Your task to perform on an android device: Is it going to rain tomorrow? Image 0: 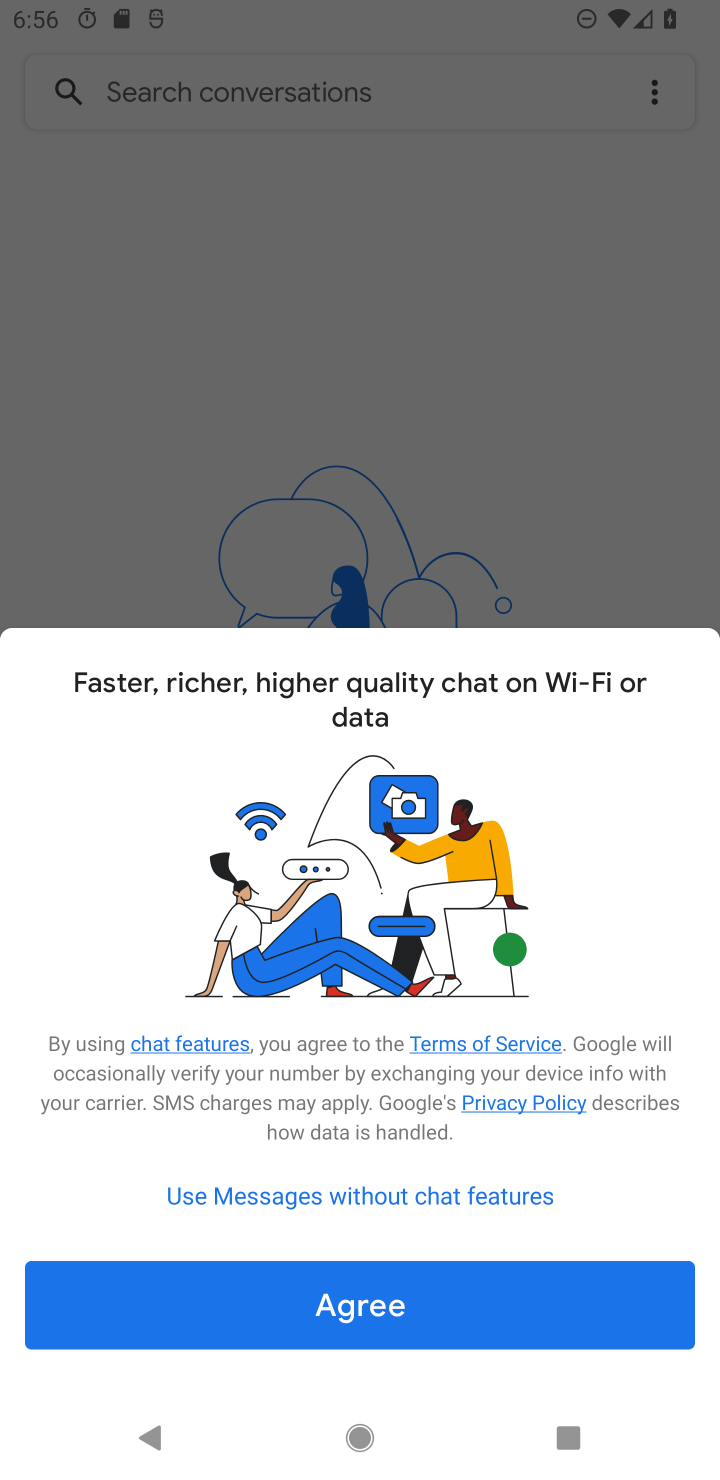
Step 0: drag from (365, 1170) to (383, 586)
Your task to perform on an android device: Is it going to rain tomorrow? Image 1: 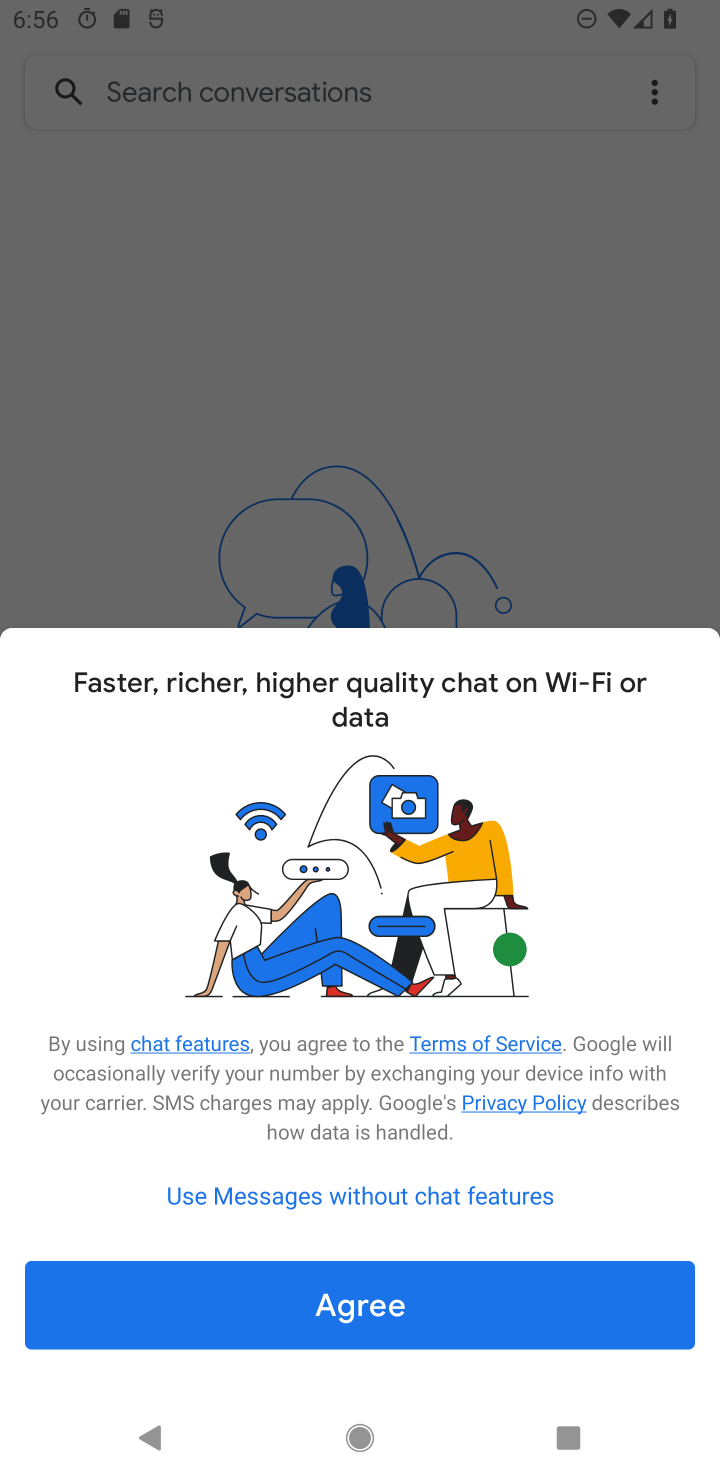
Step 1: press home button
Your task to perform on an android device: Is it going to rain tomorrow? Image 2: 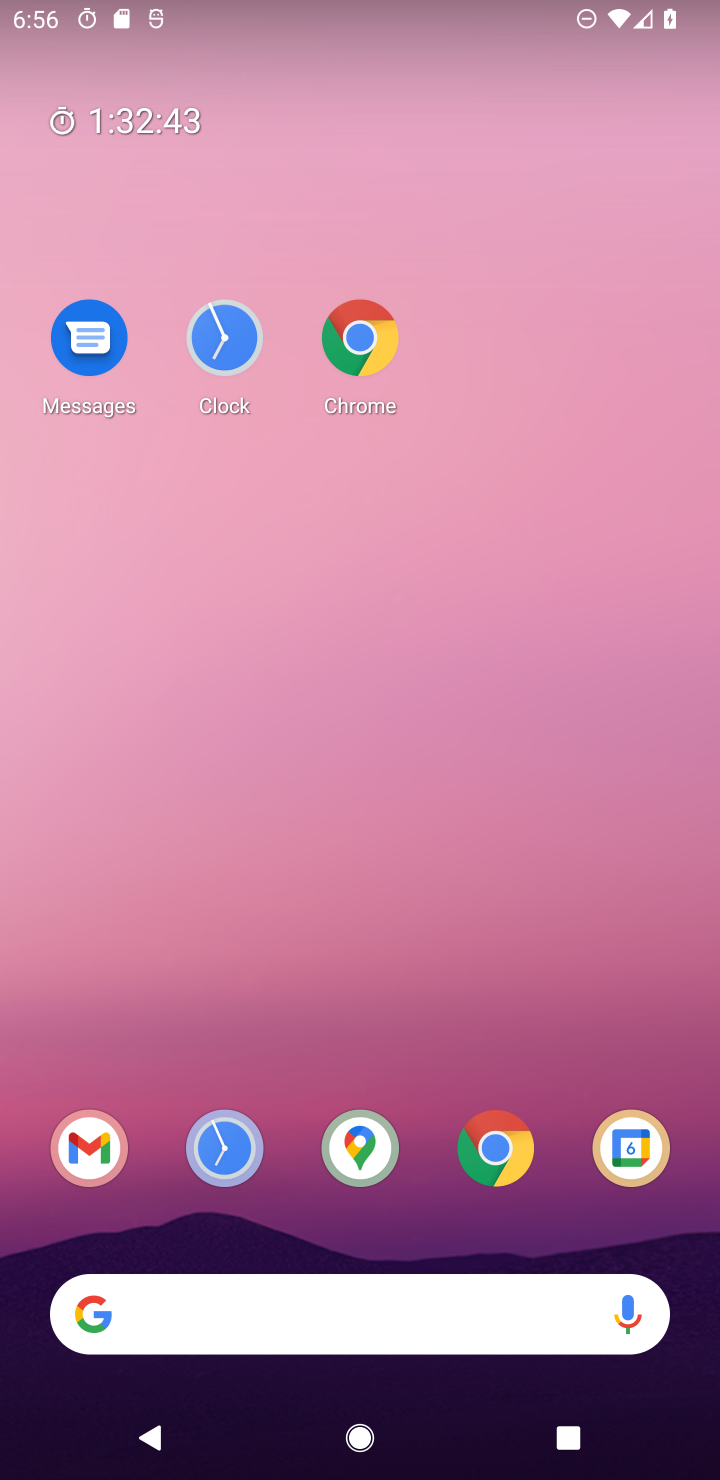
Step 2: drag from (360, 810) to (378, 393)
Your task to perform on an android device: Is it going to rain tomorrow? Image 3: 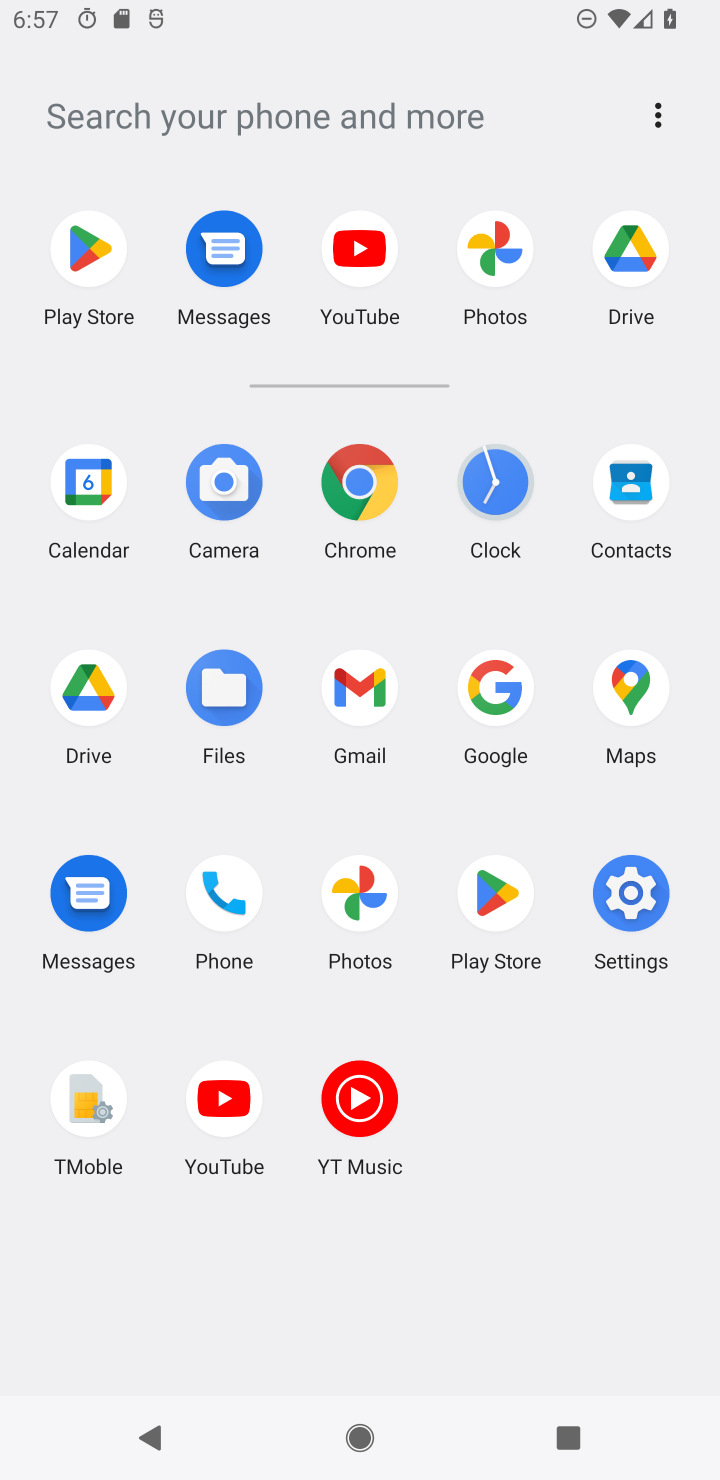
Step 3: click (103, 129)
Your task to perform on an android device: Is it going to rain tomorrow? Image 4: 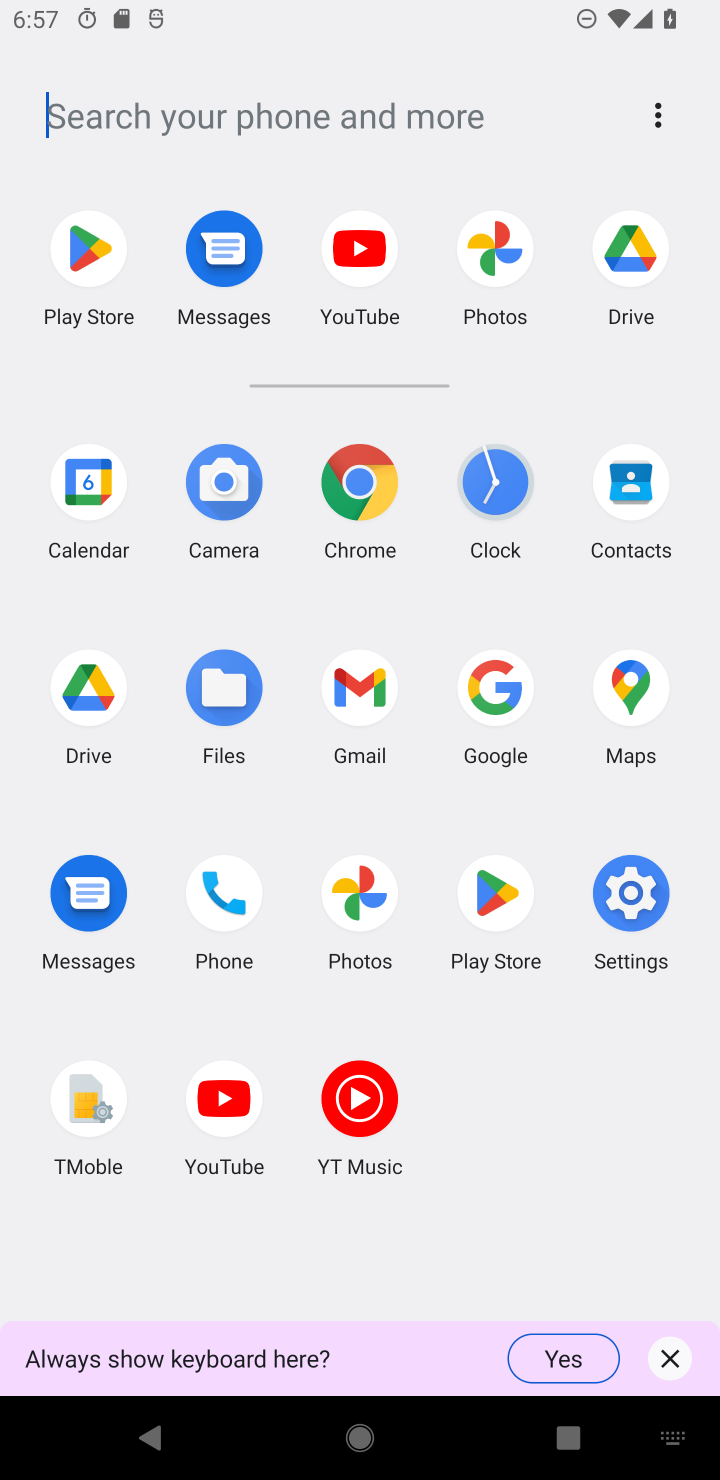
Step 4: type "Is it going to rain tomorrow?"
Your task to perform on an android device: Is it going to rain tomorrow? Image 5: 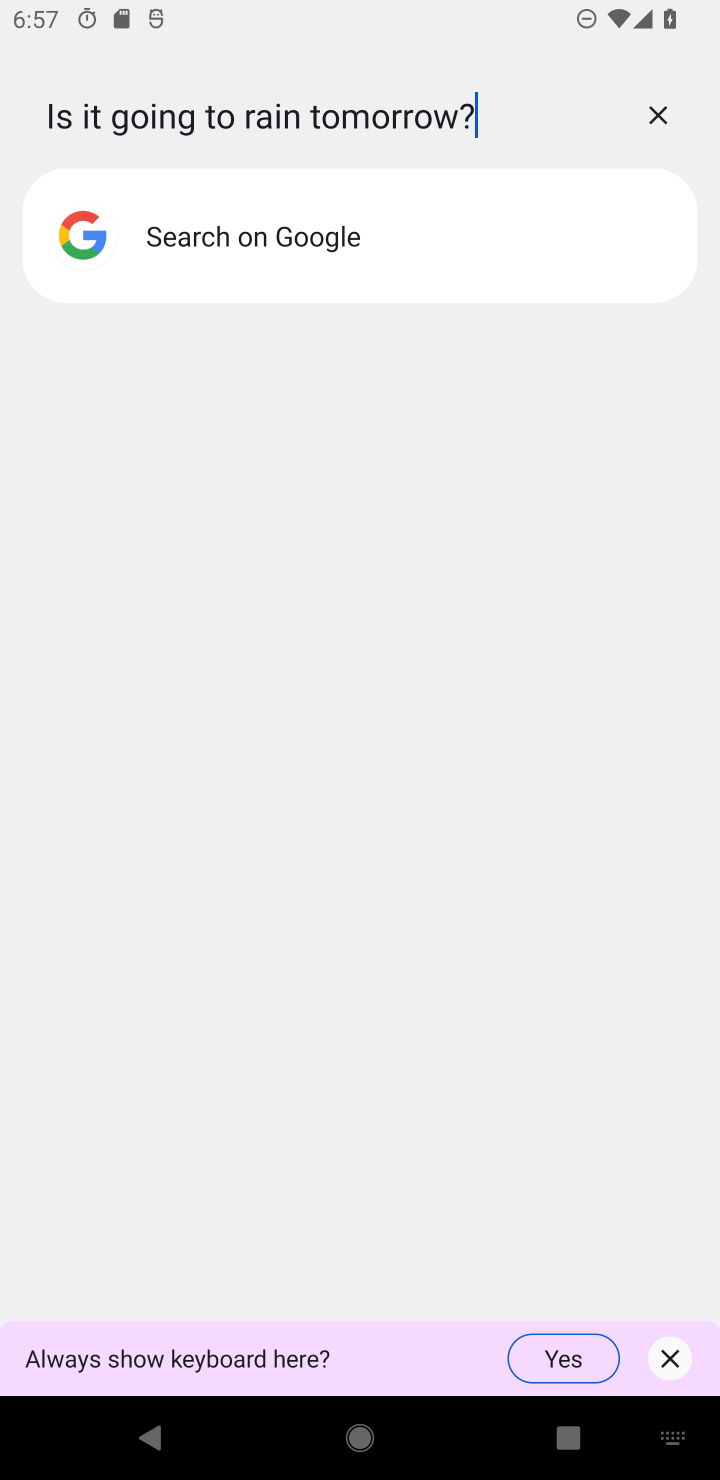
Step 5: click (250, 218)
Your task to perform on an android device: Is it going to rain tomorrow? Image 6: 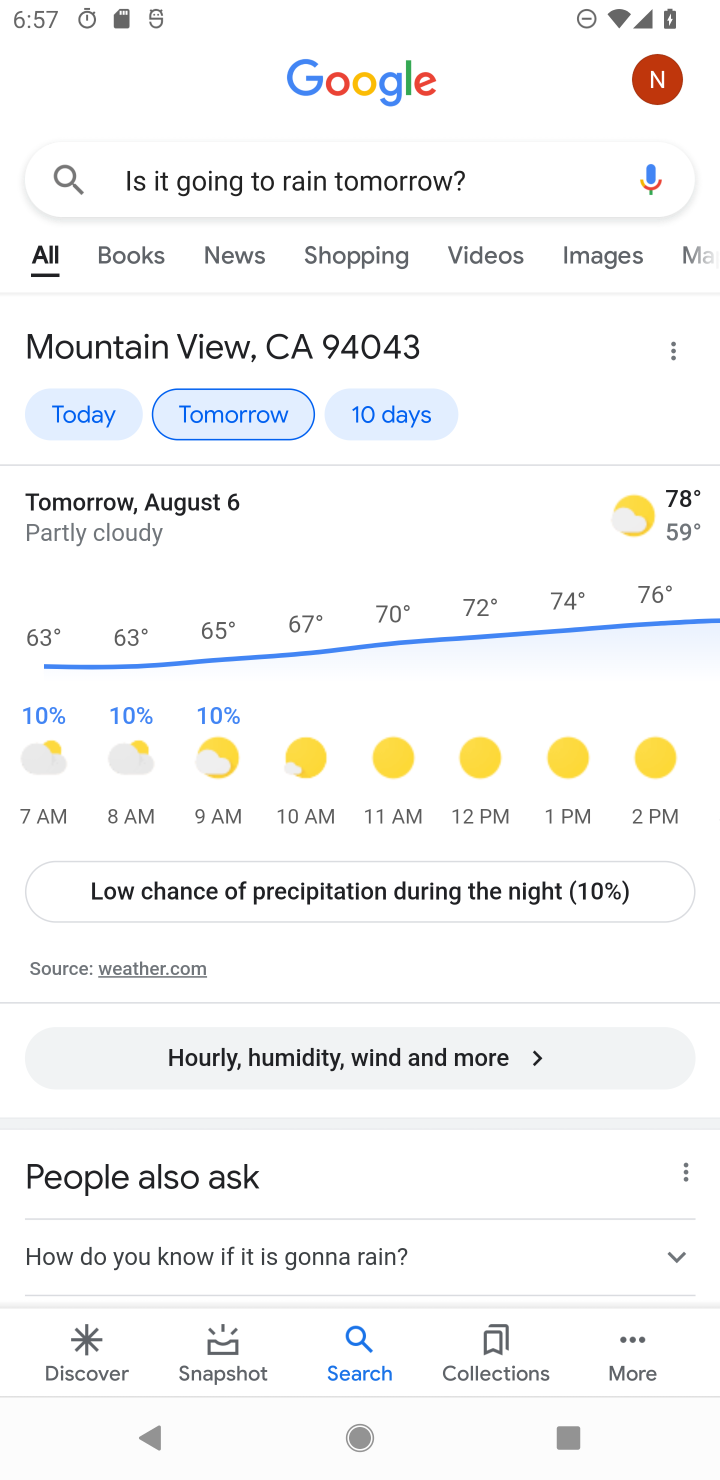
Step 6: task complete